Your task to perform on an android device: check the backup settings in the google photos Image 0: 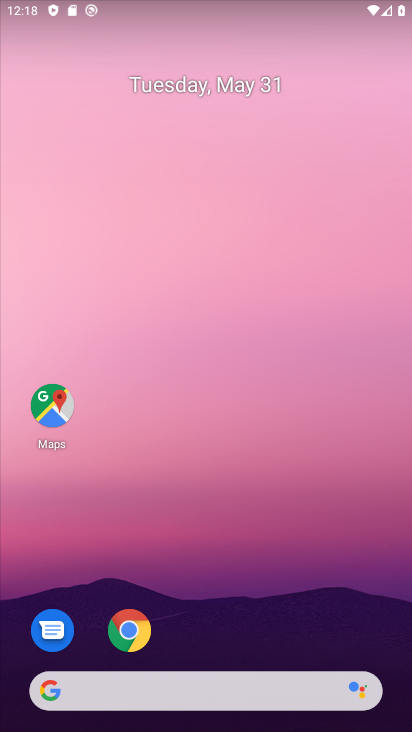
Step 0: drag from (187, 595) to (226, 224)
Your task to perform on an android device: check the backup settings in the google photos Image 1: 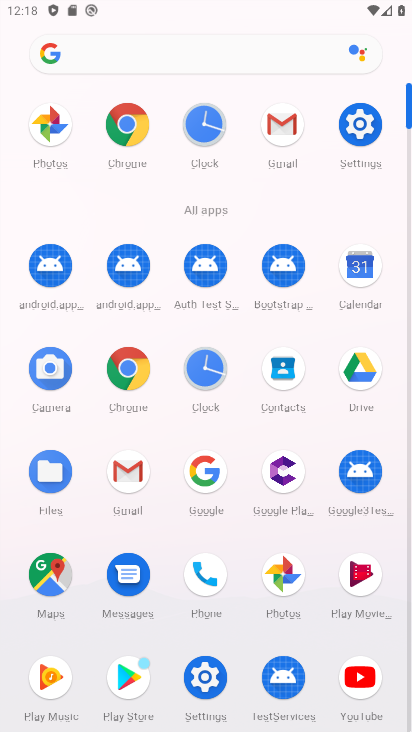
Step 1: click (287, 578)
Your task to perform on an android device: check the backup settings in the google photos Image 2: 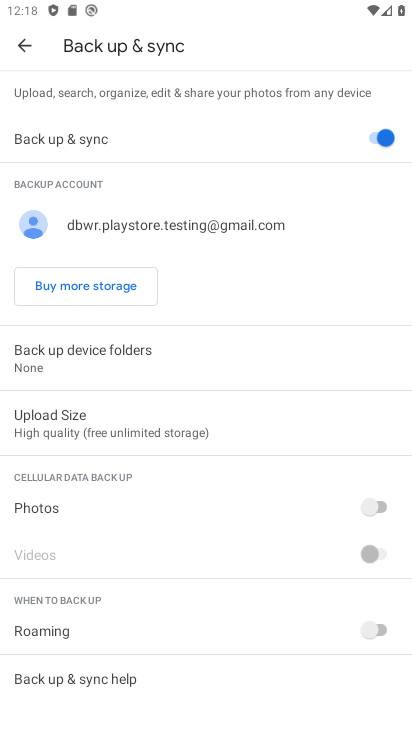
Step 2: click (85, 361)
Your task to perform on an android device: check the backup settings in the google photos Image 3: 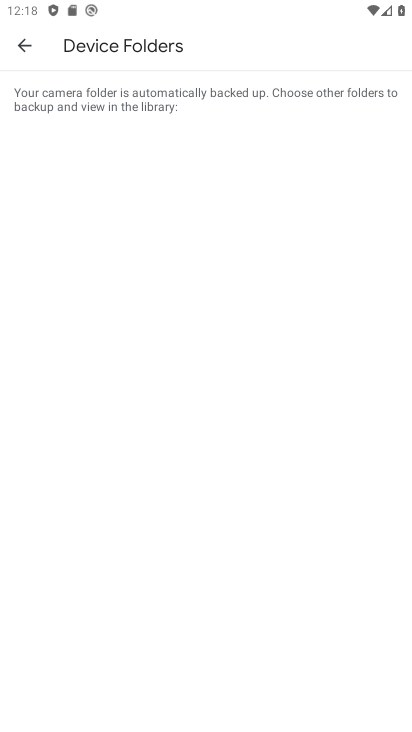
Step 3: task complete